Your task to perform on an android device: Is it going to rain tomorrow? Image 0: 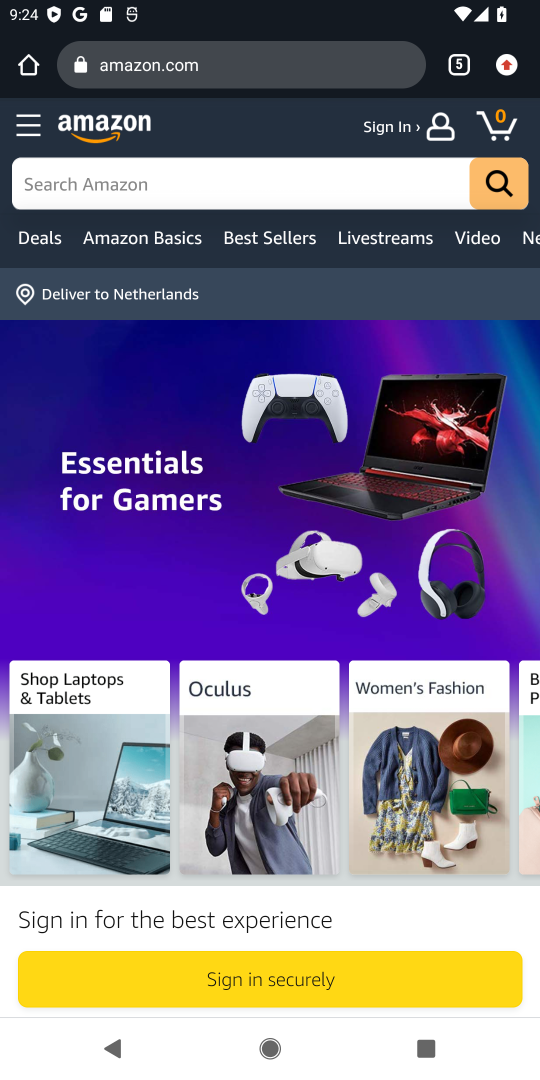
Step 0: press home button
Your task to perform on an android device: Is it going to rain tomorrow? Image 1: 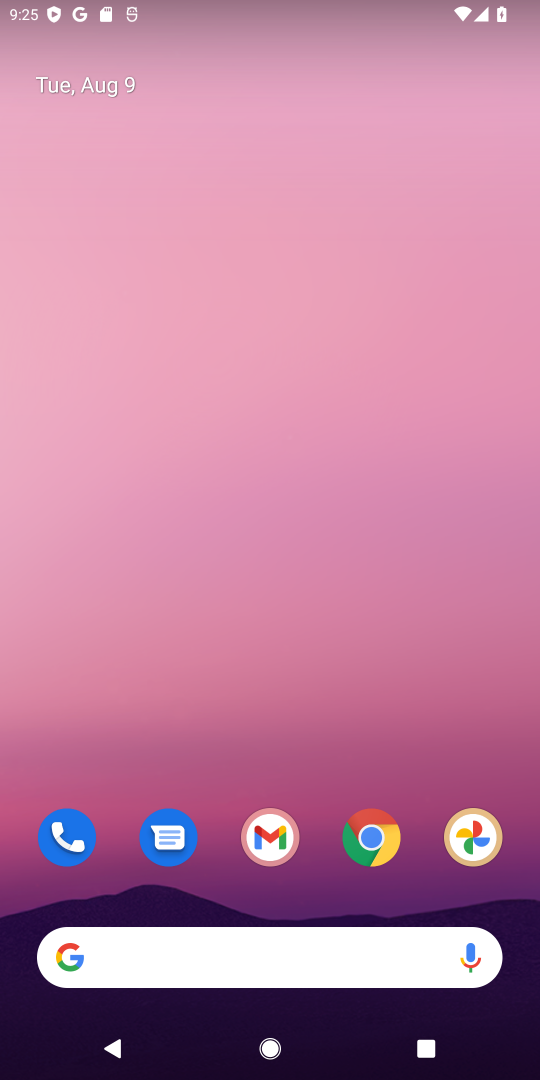
Step 1: drag from (283, 879) to (234, 158)
Your task to perform on an android device: Is it going to rain tomorrow? Image 2: 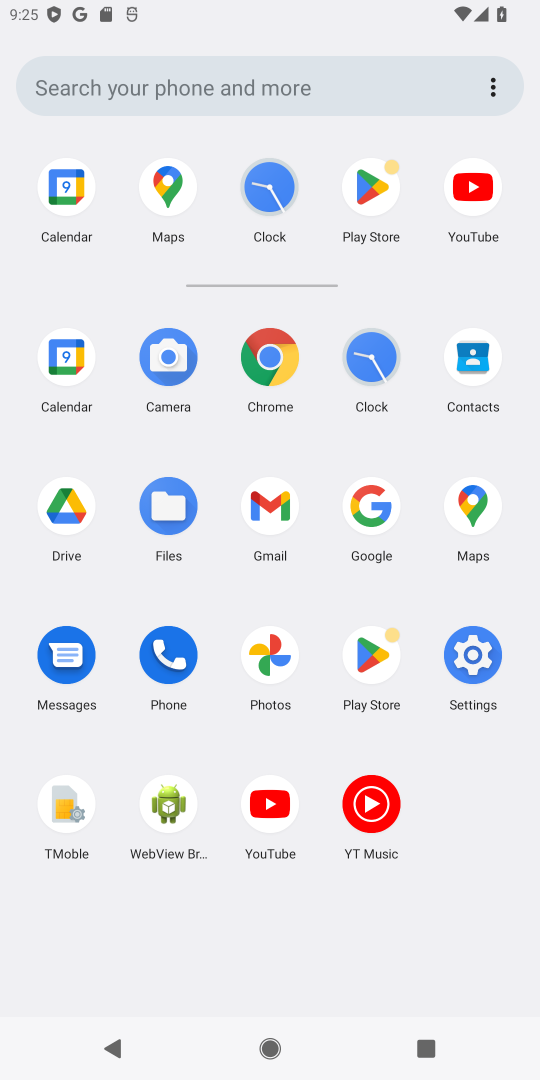
Step 2: click (372, 510)
Your task to perform on an android device: Is it going to rain tomorrow? Image 3: 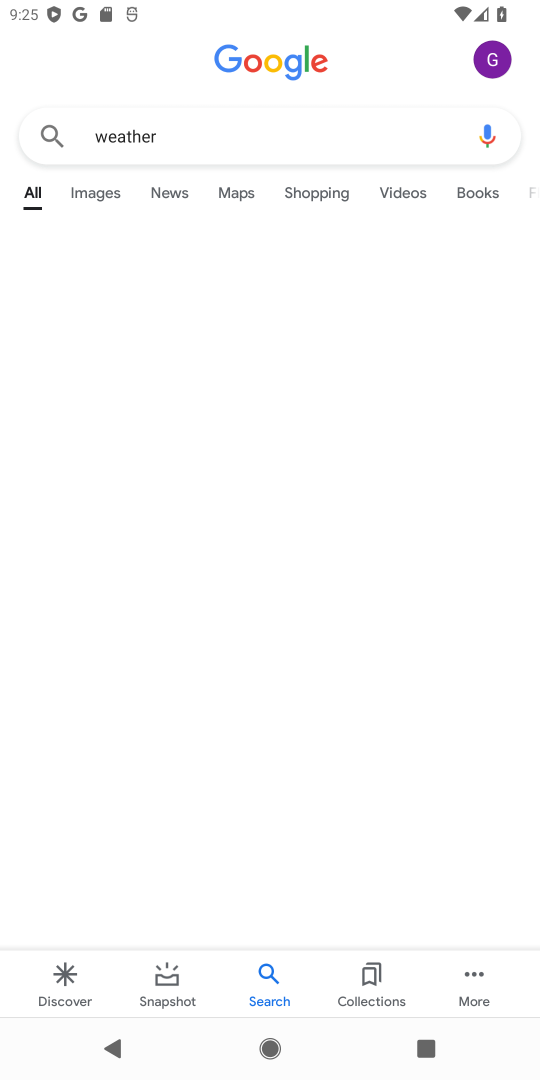
Step 3: click (210, 138)
Your task to perform on an android device: Is it going to rain tomorrow? Image 4: 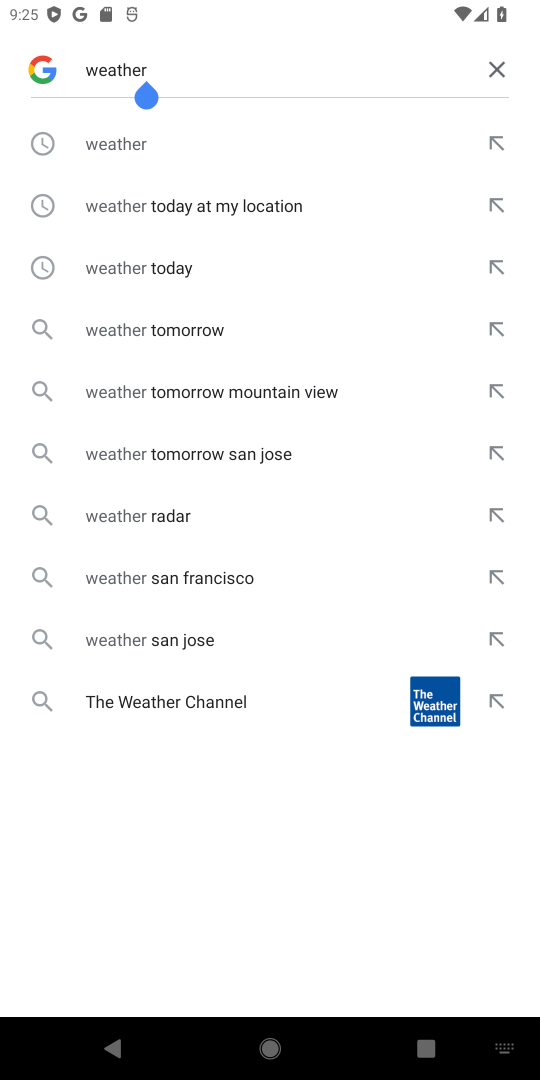
Step 4: click (119, 142)
Your task to perform on an android device: Is it going to rain tomorrow? Image 5: 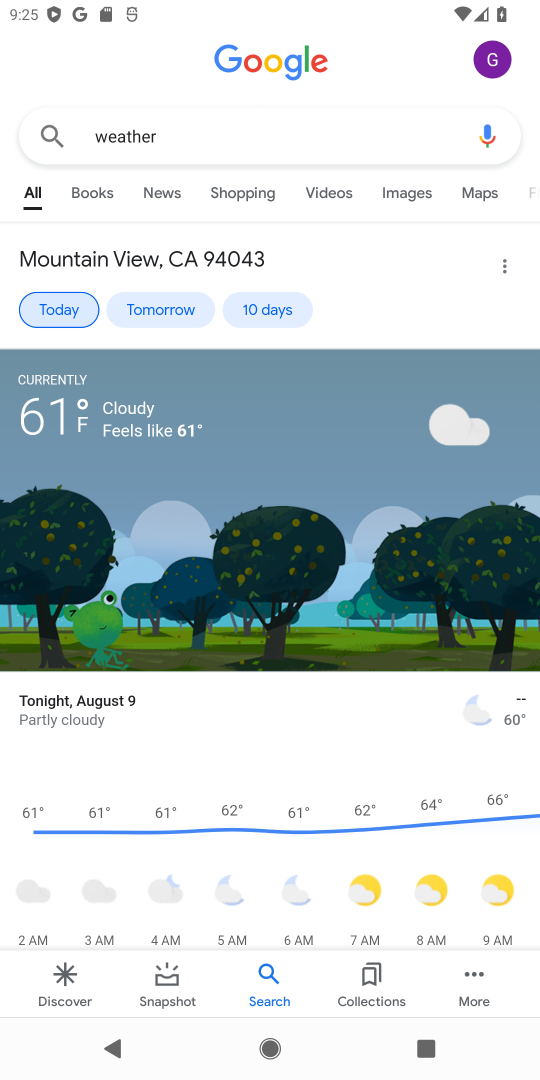
Step 5: click (158, 309)
Your task to perform on an android device: Is it going to rain tomorrow? Image 6: 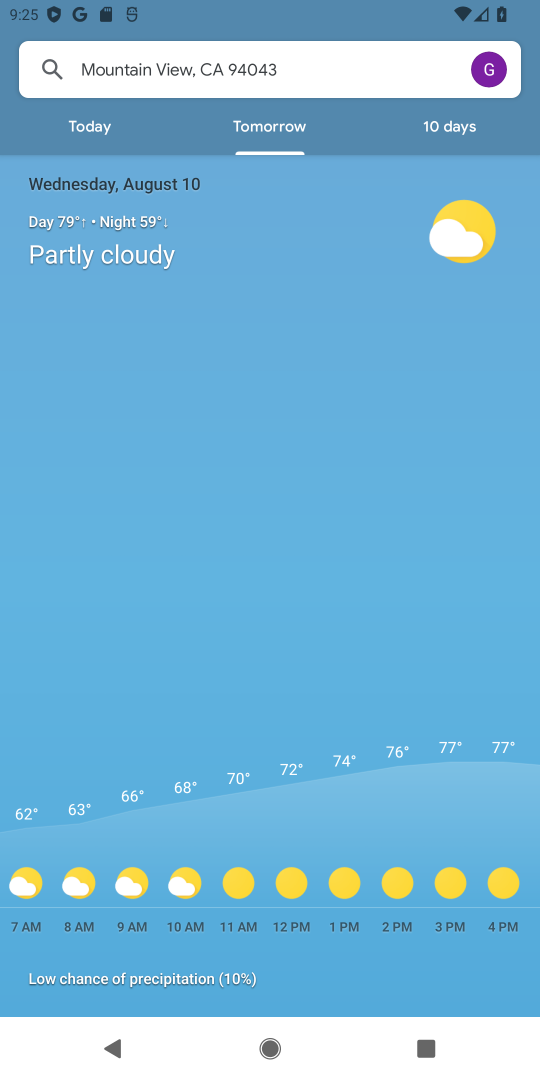
Step 6: task complete